Your task to perform on an android device: Go to accessibility settings Image 0: 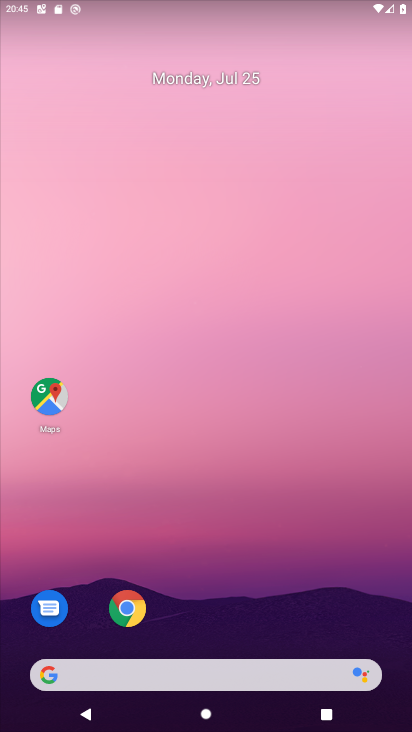
Step 0: drag from (312, 630) to (312, 222)
Your task to perform on an android device: Go to accessibility settings Image 1: 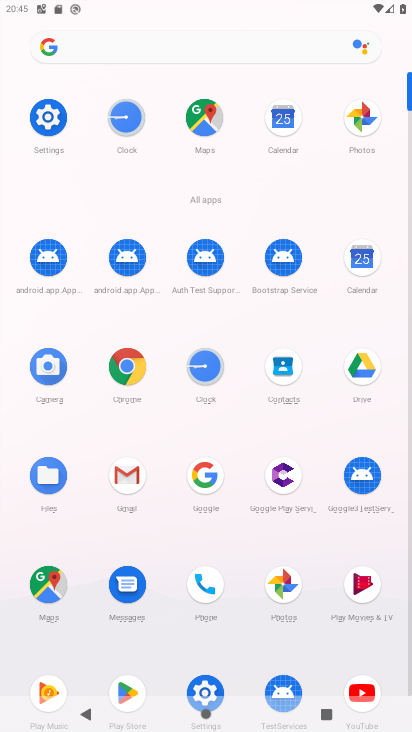
Step 1: click (56, 114)
Your task to perform on an android device: Go to accessibility settings Image 2: 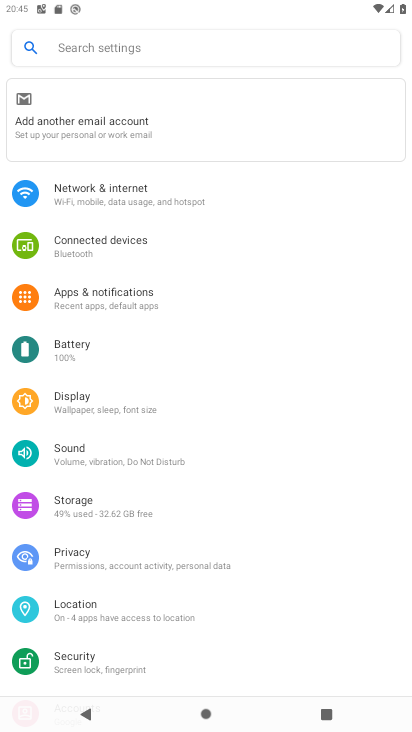
Step 2: drag from (53, 637) to (36, 342)
Your task to perform on an android device: Go to accessibility settings Image 3: 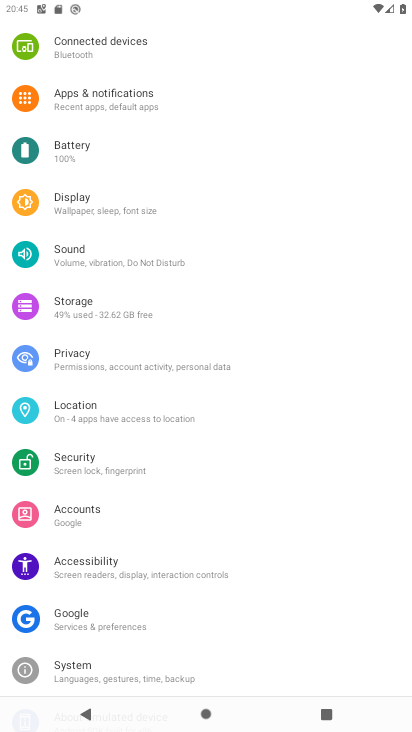
Step 3: click (67, 573)
Your task to perform on an android device: Go to accessibility settings Image 4: 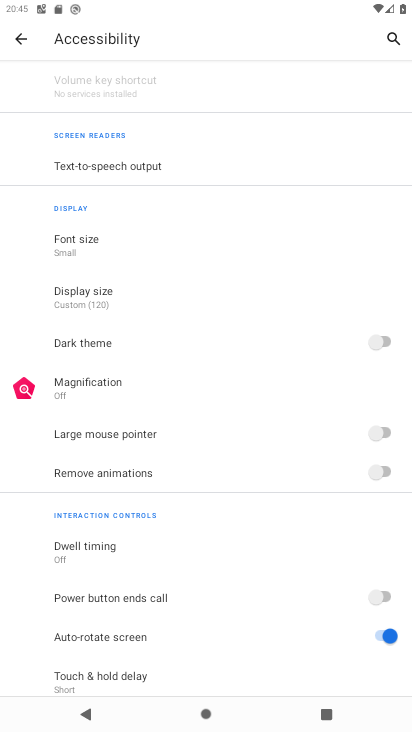
Step 4: task complete